Your task to perform on an android device: turn off smart reply in the gmail app Image 0: 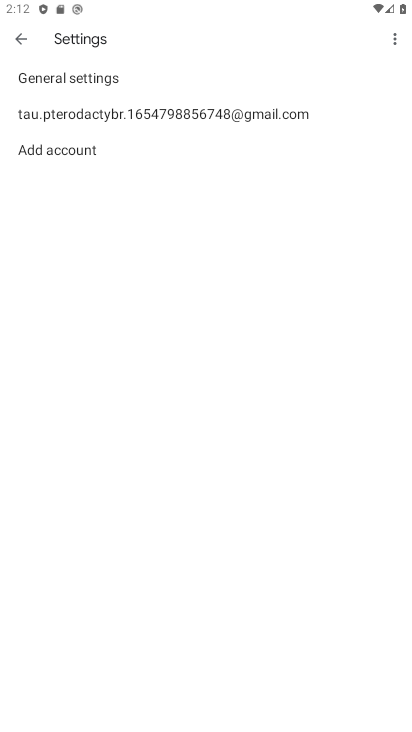
Step 0: press home button
Your task to perform on an android device: turn off smart reply in the gmail app Image 1: 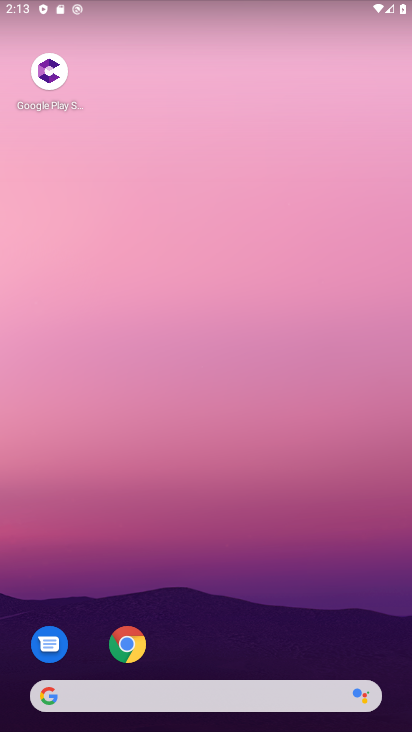
Step 1: drag from (300, 637) to (180, 56)
Your task to perform on an android device: turn off smart reply in the gmail app Image 2: 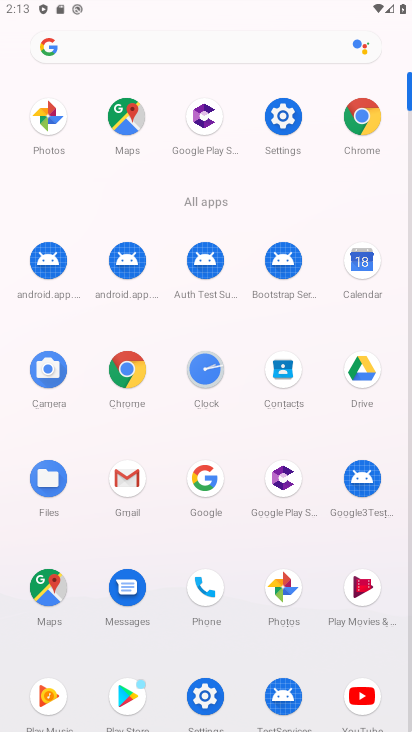
Step 2: click (133, 477)
Your task to perform on an android device: turn off smart reply in the gmail app Image 3: 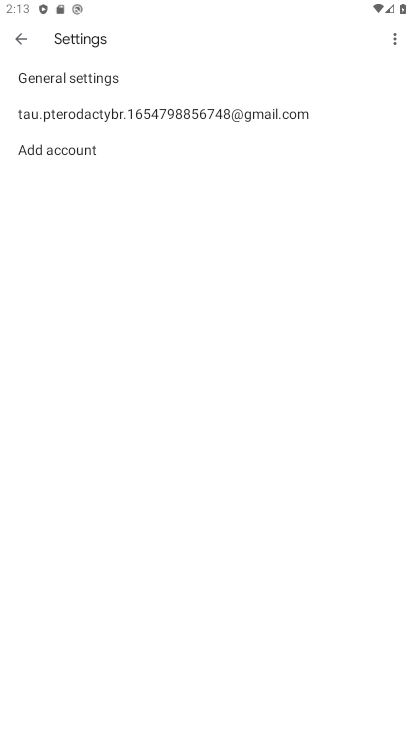
Step 3: click (185, 116)
Your task to perform on an android device: turn off smart reply in the gmail app Image 4: 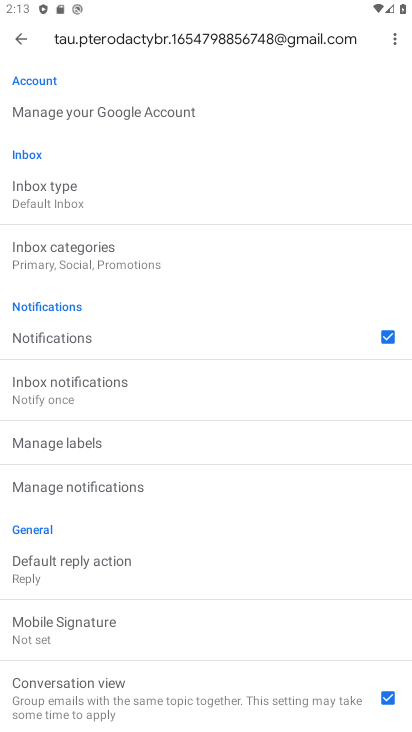
Step 4: drag from (273, 594) to (252, 130)
Your task to perform on an android device: turn off smart reply in the gmail app Image 5: 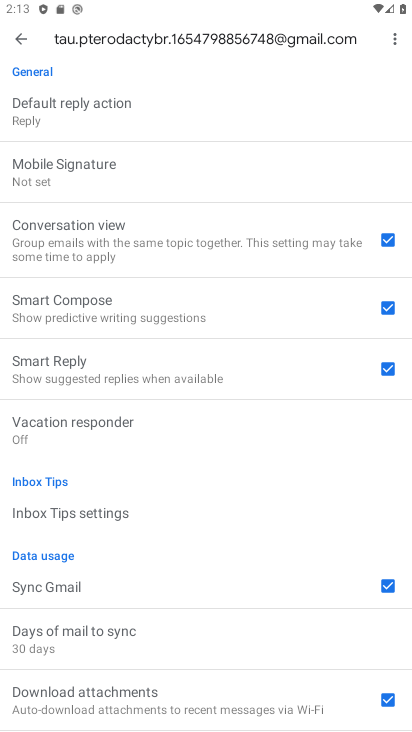
Step 5: click (388, 369)
Your task to perform on an android device: turn off smart reply in the gmail app Image 6: 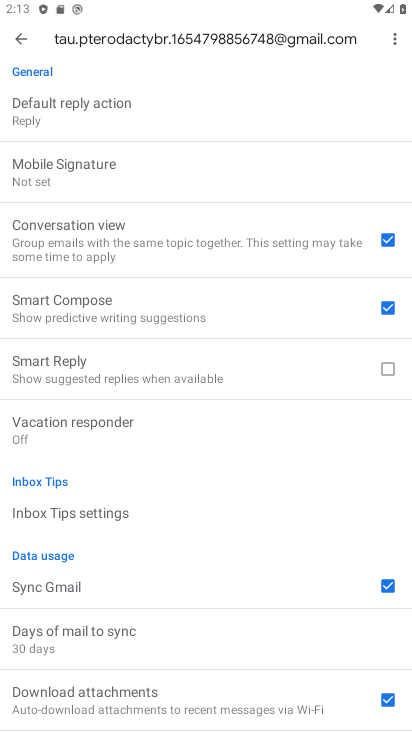
Step 6: task complete